Your task to perform on an android device: Open settings on Google Maps Image 0: 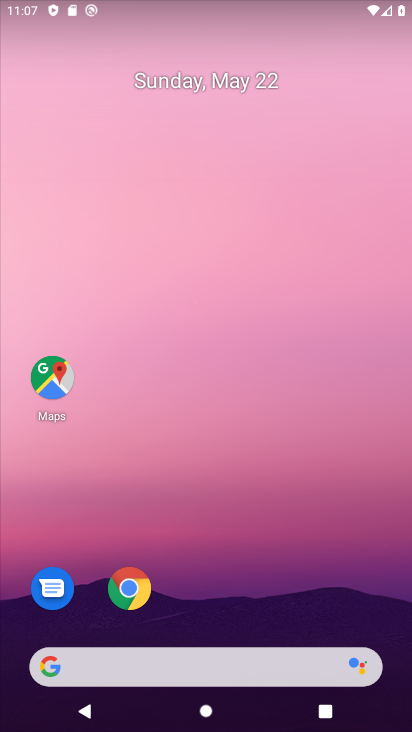
Step 0: click (45, 381)
Your task to perform on an android device: Open settings on Google Maps Image 1: 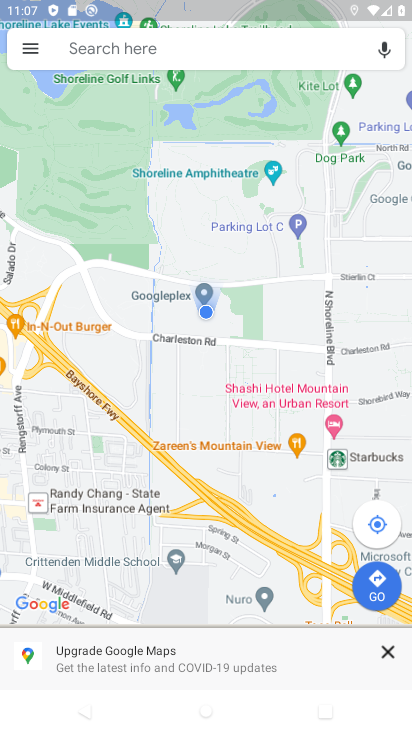
Step 1: click (40, 48)
Your task to perform on an android device: Open settings on Google Maps Image 2: 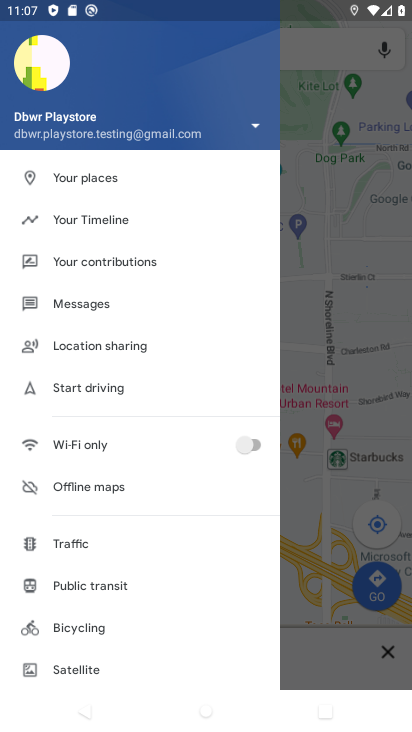
Step 2: click (105, 659)
Your task to perform on an android device: Open settings on Google Maps Image 3: 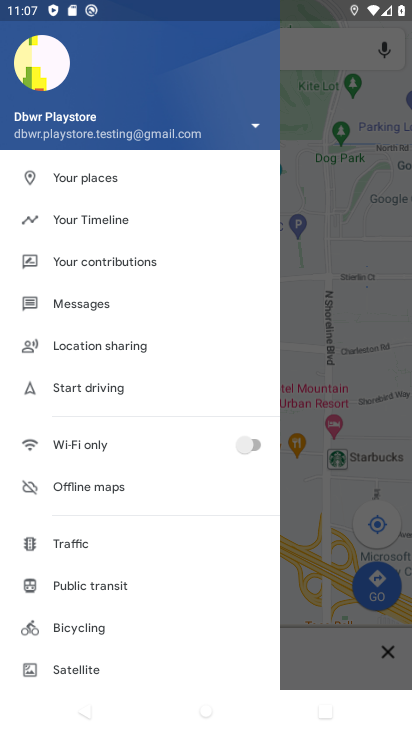
Step 3: drag from (105, 659) to (59, 124)
Your task to perform on an android device: Open settings on Google Maps Image 4: 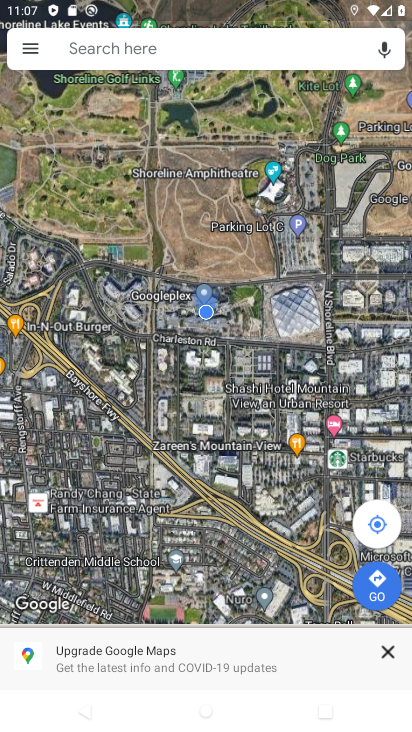
Step 4: click (28, 55)
Your task to perform on an android device: Open settings on Google Maps Image 5: 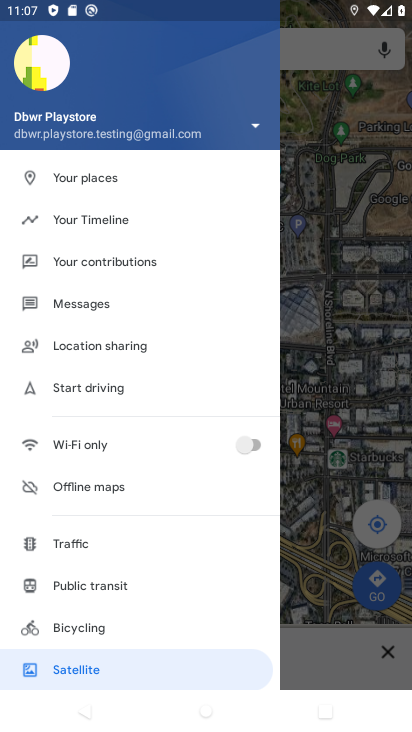
Step 5: drag from (160, 478) to (181, 12)
Your task to perform on an android device: Open settings on Google Maps Image 6: 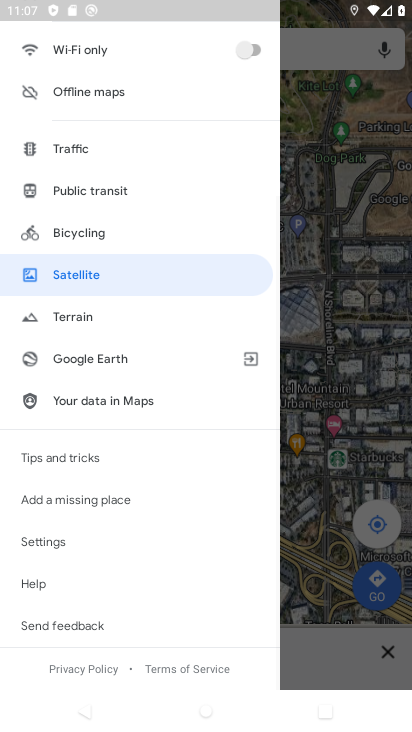
Step 6: click (55, 524)
Your task to perform on an android device: Open settings on Google Maps Image 7: 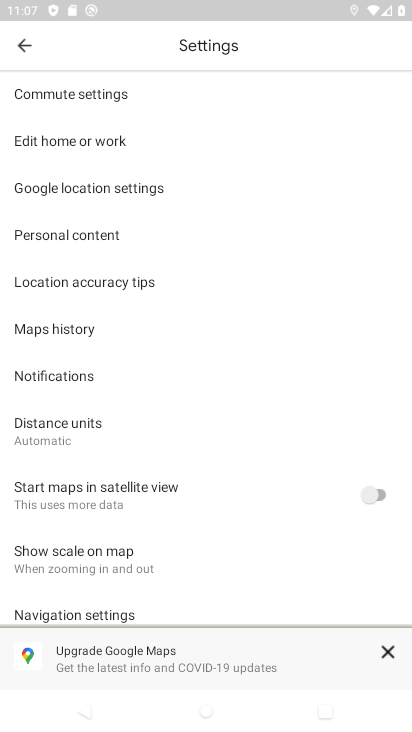
Step 7: task complete